Your task to perform on an android device: turn on priority inbox in the gmail app Image 0: 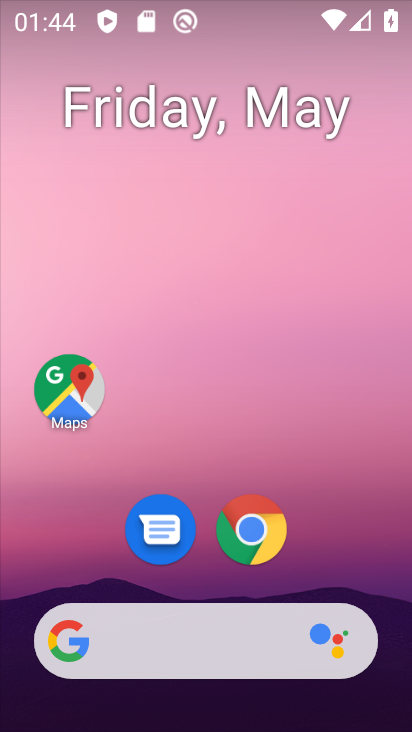
Step 0: drag from (378, 528) to (373, 79)
Your task to perform on an android device: turn on priority inbox in the gmail app Image 1: 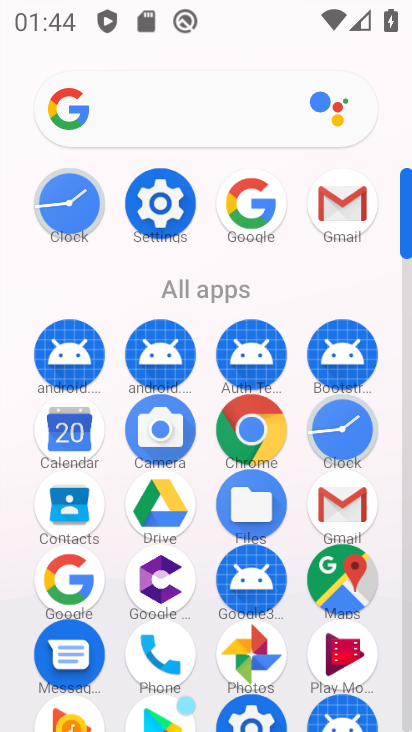
Step 1: click (342, 199)
Your task to perform on an android device: turn on priority inbox in the gmail app Image 2: 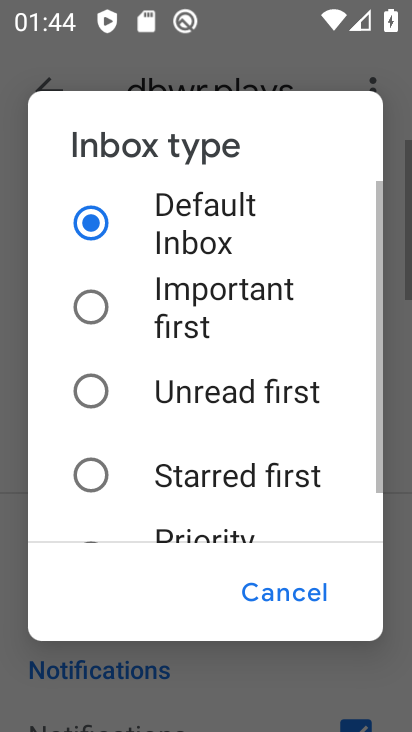
Step 2: drag from (160, 444) to (167, 210)
Your task to perform on an android device: turn on priority inbox in the gmail app Image 3: 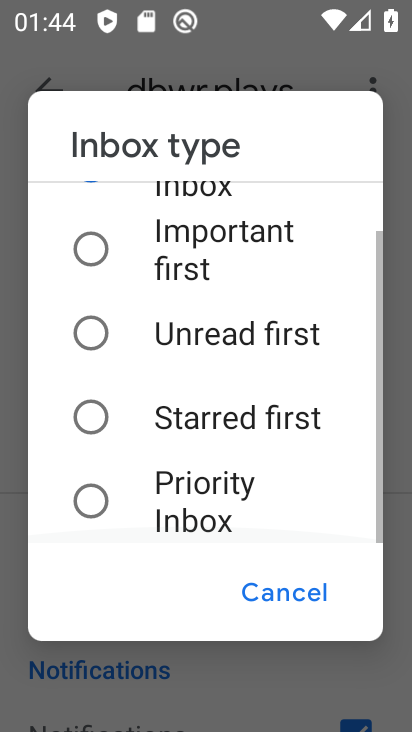
Step 3: click (89, 499)
Your task to perform on an android device: turn on priority inbox in the gmail app Image 4: 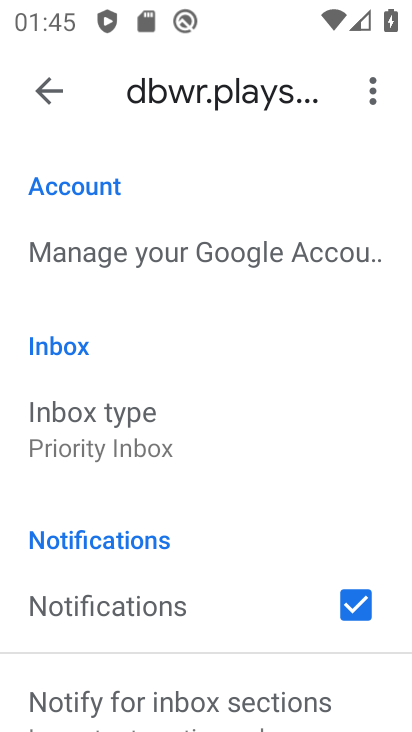
Step 4: task complete